Your task to perform on an android device: Open Google Image 0: 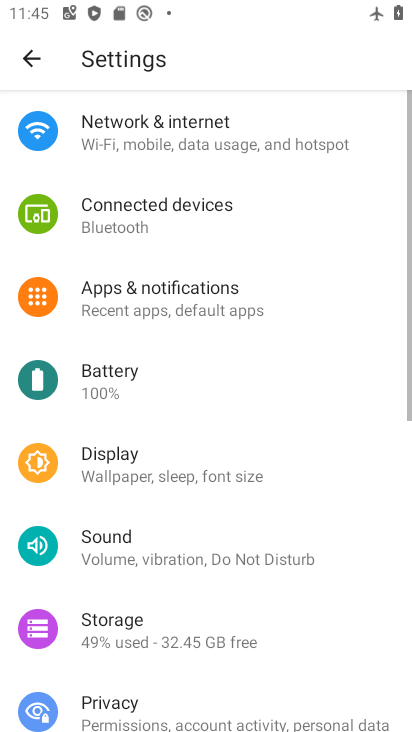
Step 0: press home button
Your task to perform on an android device: Open Google Image 1: 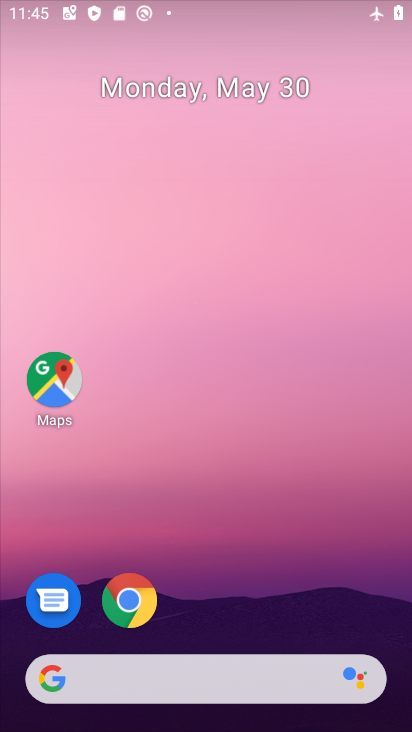
Step 1: drag from (237, 728) to (271, 93)
Your task to perform on an android device: Open Google Image 2: 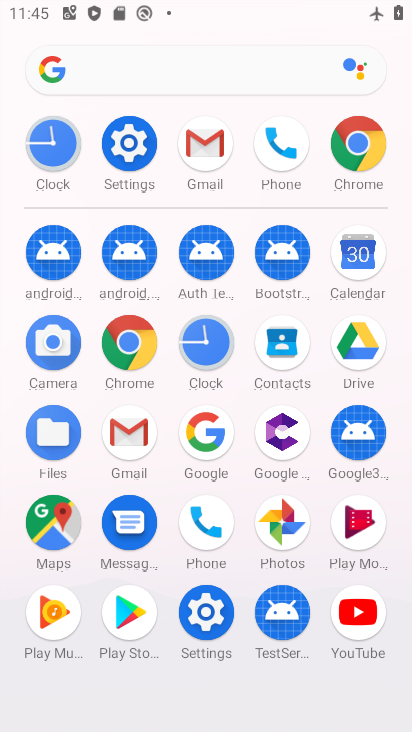
Step 2: click (209, 425)
Your task to perform on an android device: Open Google Image 3: 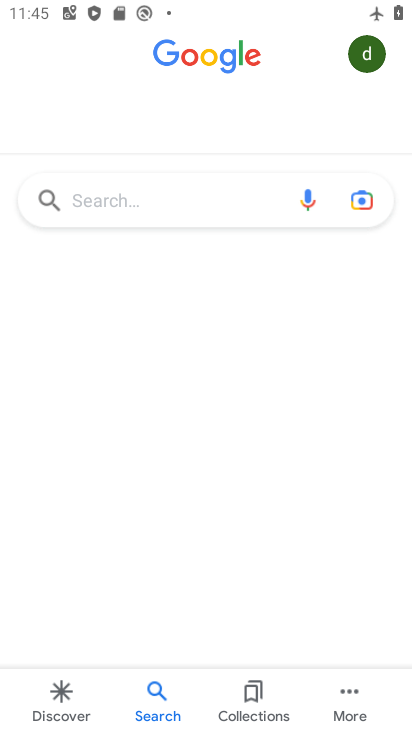
Step 3: task complete